Your task to perform on an android device: turn off smart reply in the gmail app Image 0: 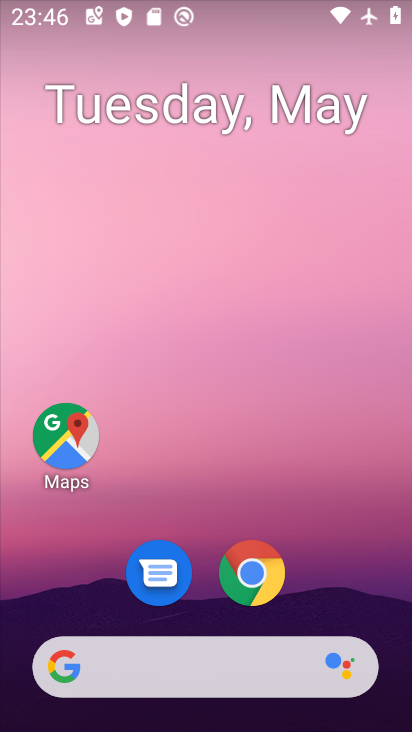
Step 0: click (308, 582)
Your task to perform on an android device: turn off smart reply in the gmail app Image 1: 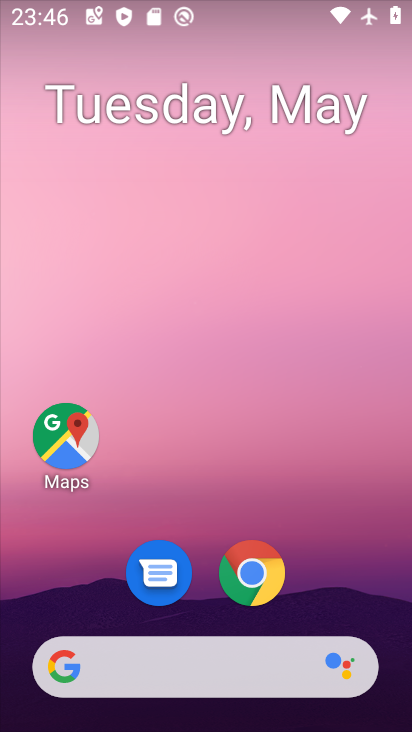
Step 1: drag from (307, 465) to (305, 353)
Your task to perform on an android device: turn off smart reply in the gmail app Image 2: 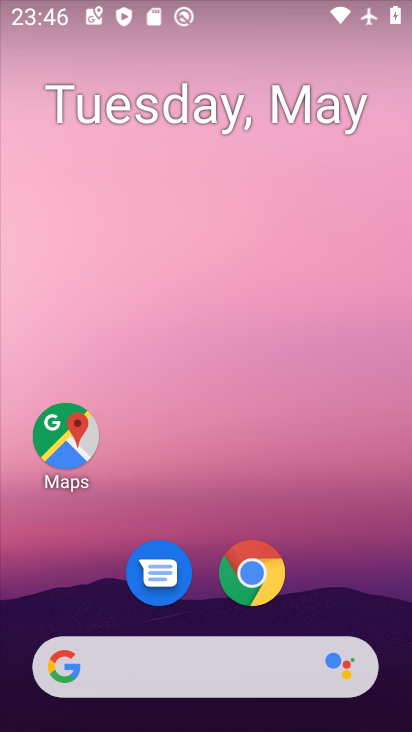
Step 2: drag from (365, 567) to (342, 274)
Your task to perform on an android device: turn off smart reply in the gmail app Image 3: 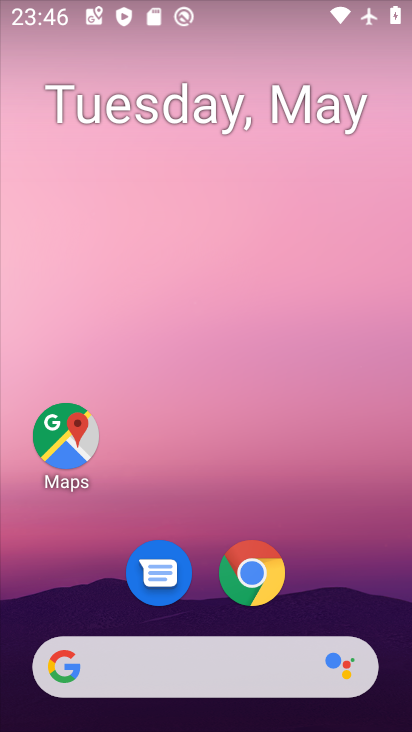
Step 3: drag from (368, 619) to (330, 190)
Your task to perform on an android device: turn off smart reply in the gmail app Image 4: 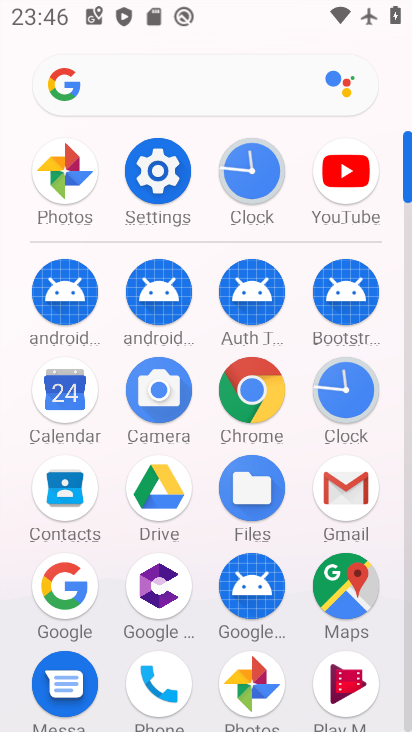
Step 4: click (333, 485)
Your task to perform on an android device: turn off smart reply in the gmail app Image 5: 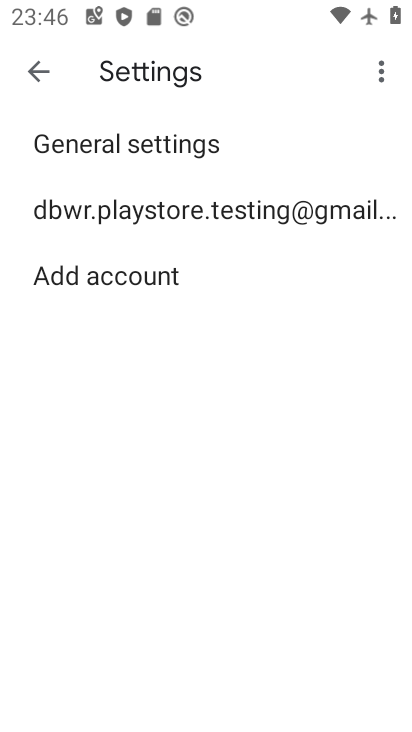
Step 5: click (92, 210)
Your task to perform on an android device: turn off smart reply in the gmail app Image 6: 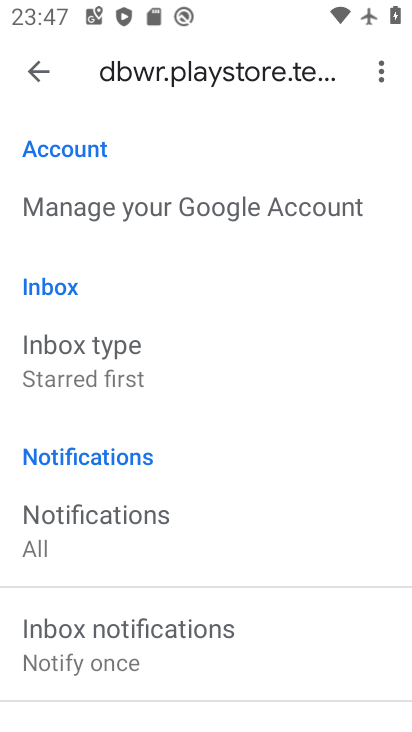
Step 6: drag from (207, 588) to (212, 239)
Your task to perform on an android device: turn off smart reply in the gmail app Image 7: 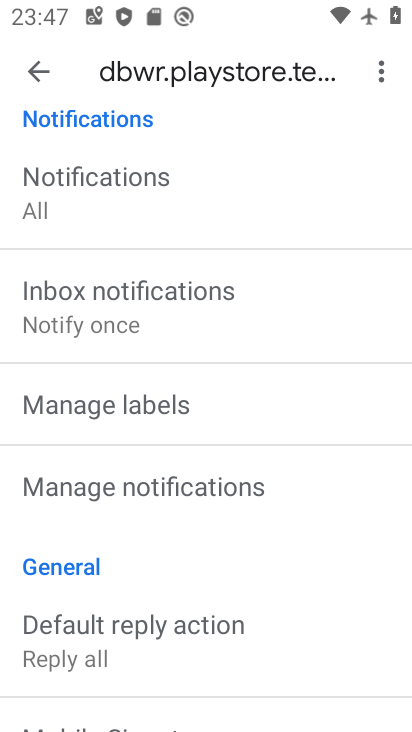
Step 7: drag from (198, 620) to (256, 237)
Your task to perform on an android device: turn off smart reply in the gmail app Image 8: 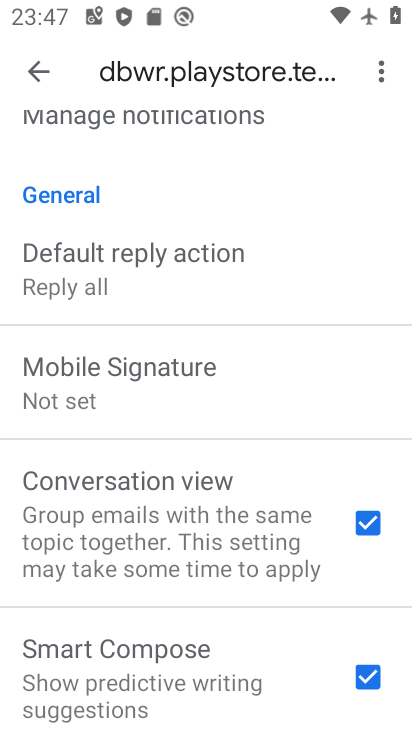
Step 8: drag from (258, 599) to (279, 242)
Your task to perform on an android device: turn off smart reply in the gmail app Image 9: 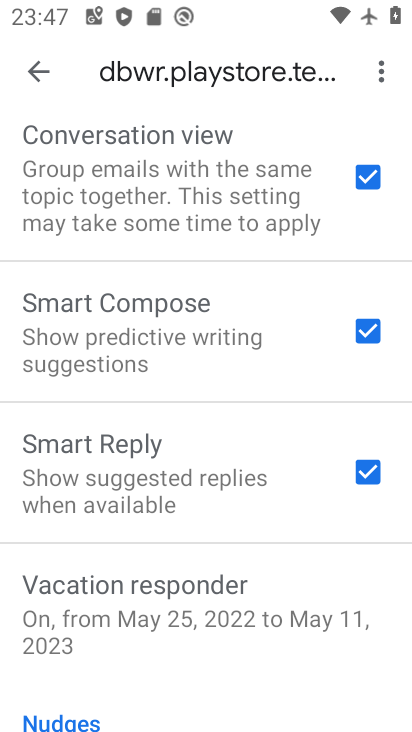
Step 9: click (352, 477)
Your task to perform on an android device: turn off smart reply in the gmail app Image 10: 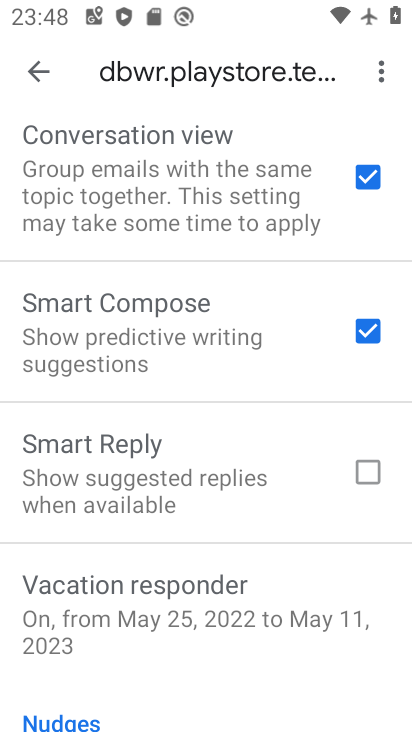
Step 10: task complete